Your task to perform on an android device: Open the web browser Image 0: 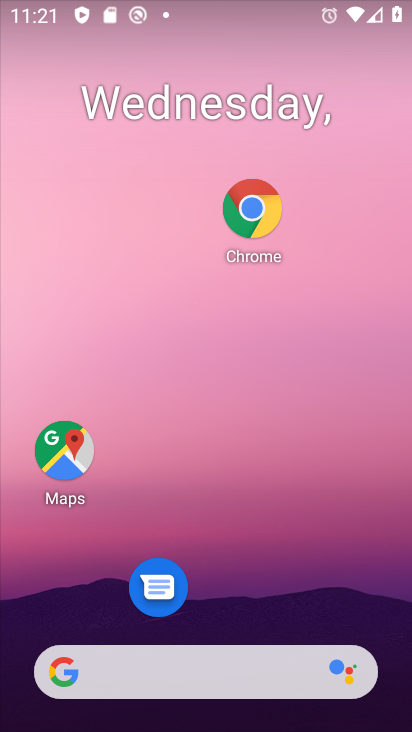
Step 0: click (241, 254)
Your task to perform on an android device: Open the web browser Image 1: 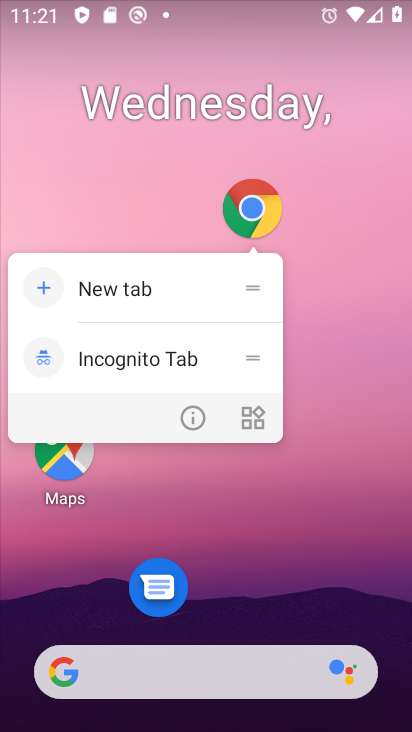
Step 1: click (245, 234)
Your task to perform on an android device: Open the web browser Image 2: 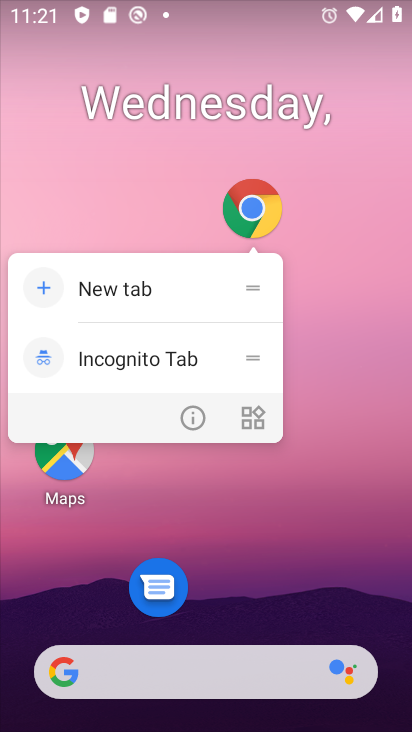
Step 2: click (253, 209)
Your task to perform on an android device: Open the web browser Image 3: 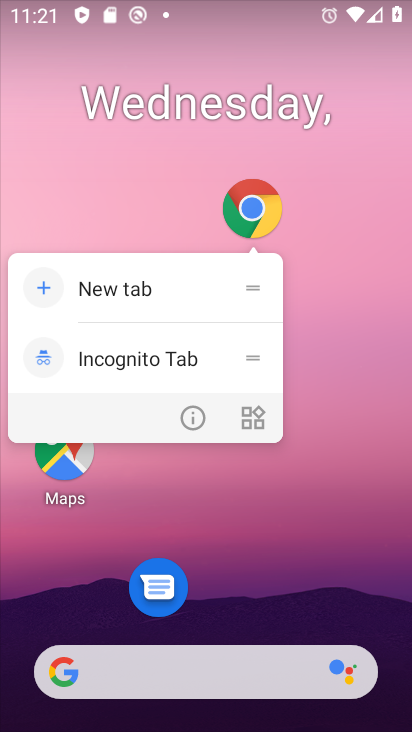
Step 3: click (253, 209)
Your task to perform on an android device: Open the web browser Image 4: 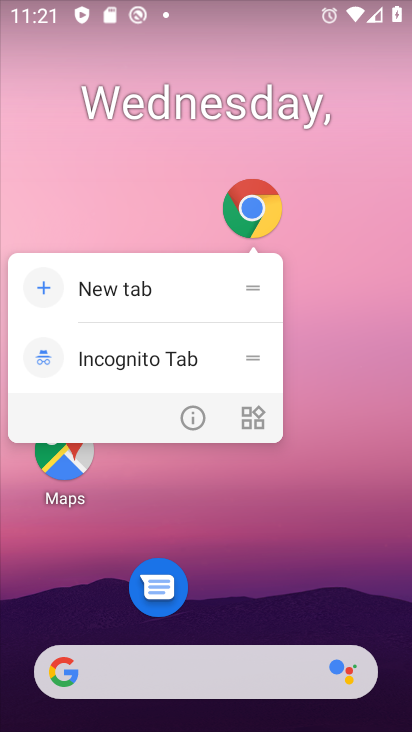
Step 4: click (253, 209)
Your task to perform on an android device: Open the web browser Image 5: 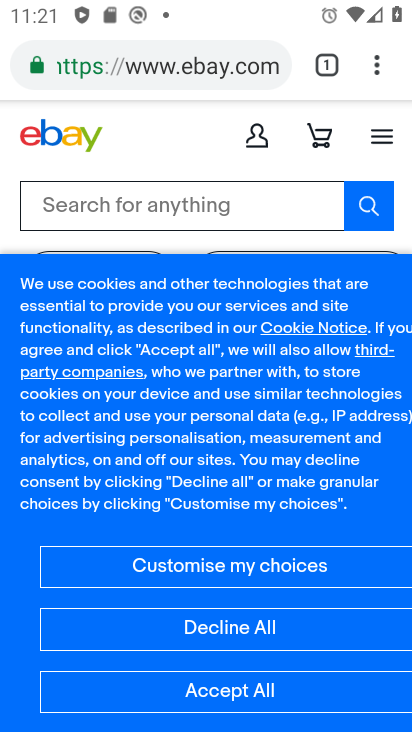
Step 5: task complete